Your task to perform on an android device: toggle javascript in the chrome app Image 0: 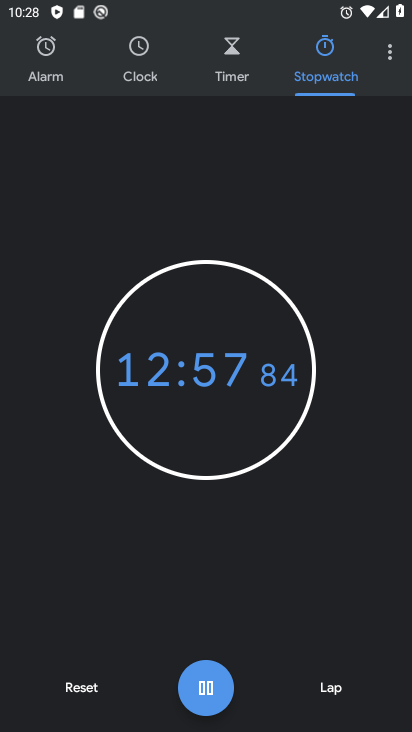
Step 0: press home button
Your task to perform on an android device: toggle javascript in the chrome app Image 1: 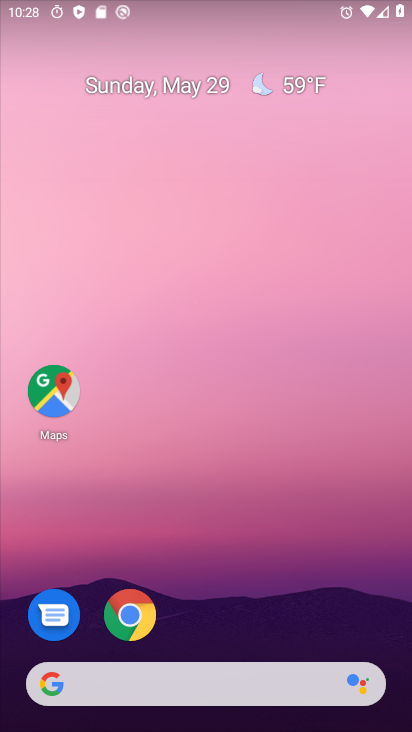
Step 1: click (129, 617)
Your task to perform on an android device: toggle javascript in the chrome app Image 2: 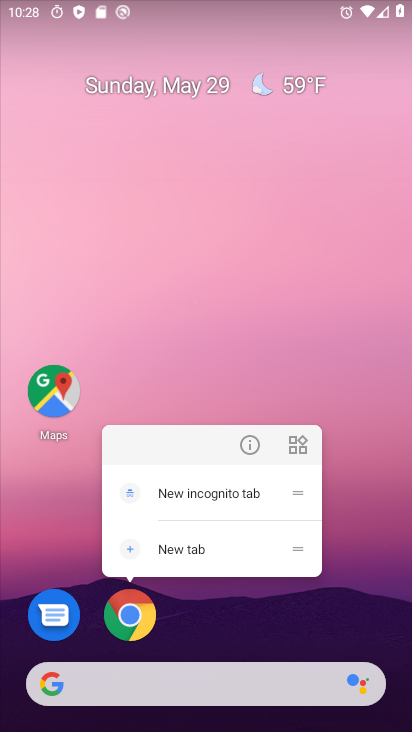
Step 2: click (132, 618)
Your task to perform on an android device: toggle javascript in the chrome app Image 3: 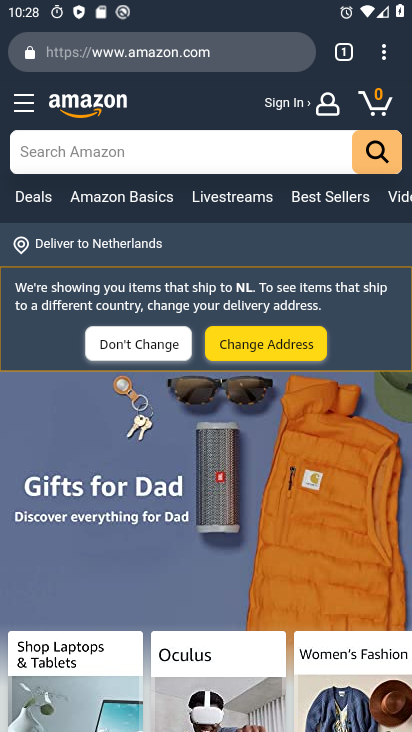
Step 3: click (378, 51)
Your task to perform on an android device: toggle javascript in the chrome app Image 4: 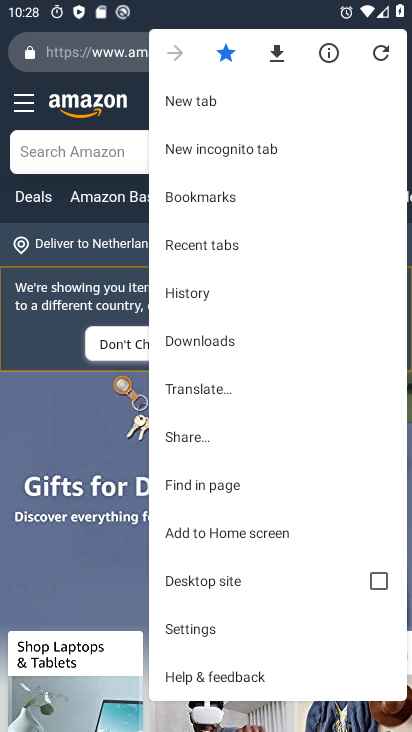
Step 4: click (229, 630)
Your task to perform on an android device: toggle javascript in the chrome app Image 5: 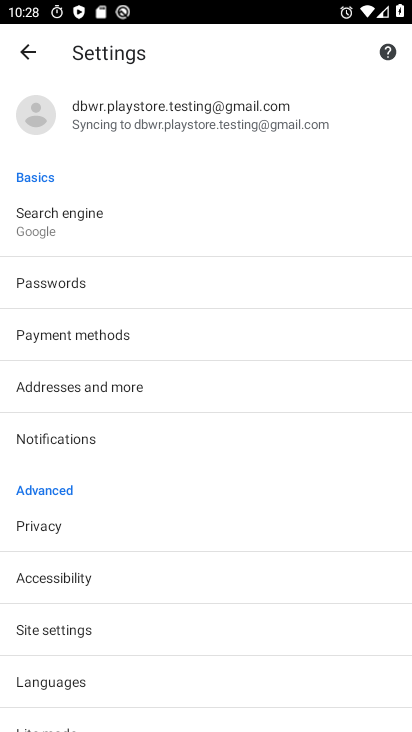
Step 5: click (99, 615)
Your task to perform on an android device: toggle javascript in the chrome app Image 6: 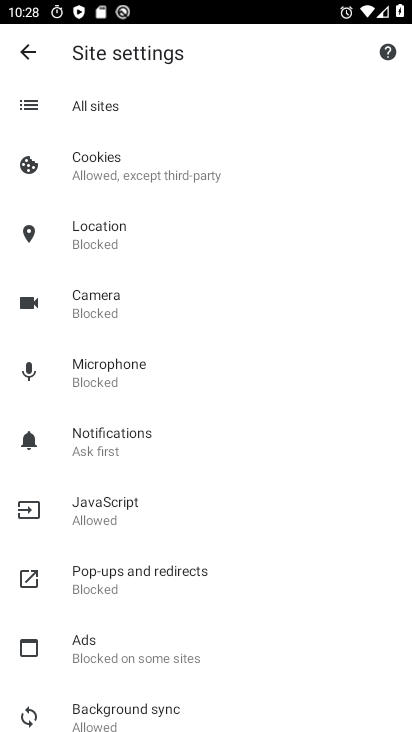
Step 6: click (105, 508)
Your task to perform on an android device: toggle javascript in the chrome app Image 7: 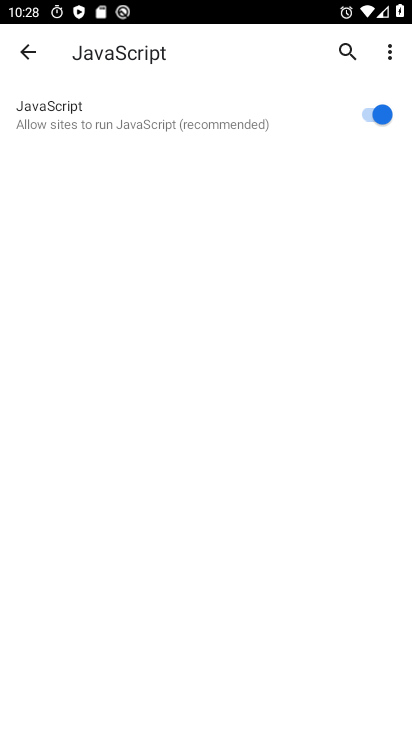
Step 7: click (390, 120)
Your task to perform on an android device: toggle javascript in the chrome app Image 8: 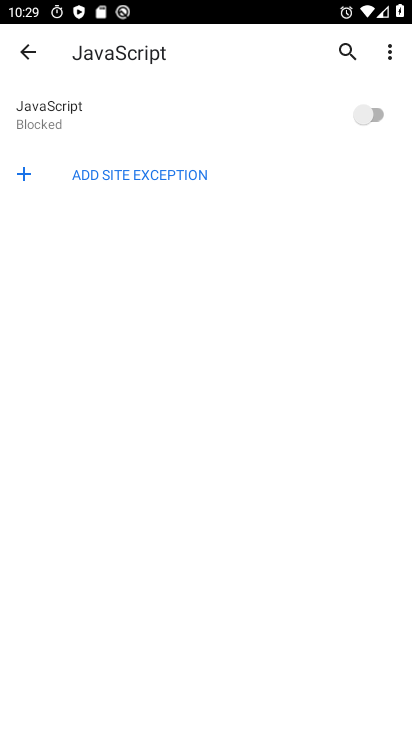
Step 8: task complete